Your task to perform on an android device: turn on wifi Image 0: 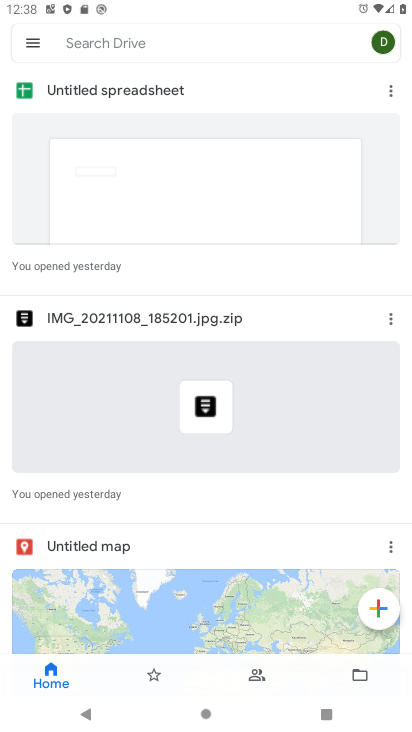
Step 0: press home button
Your task to perform on an android device: turn on wifi Image 1: 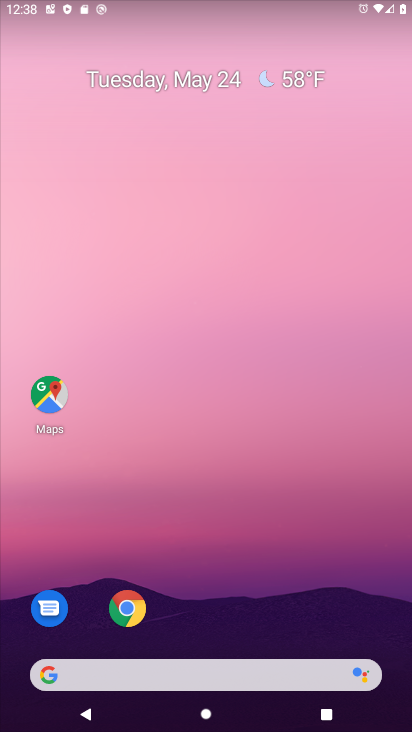
Step 1: drag from (258, 687) to (310, 120)
Your task to perform on an android device: turn on wifi Image 2: 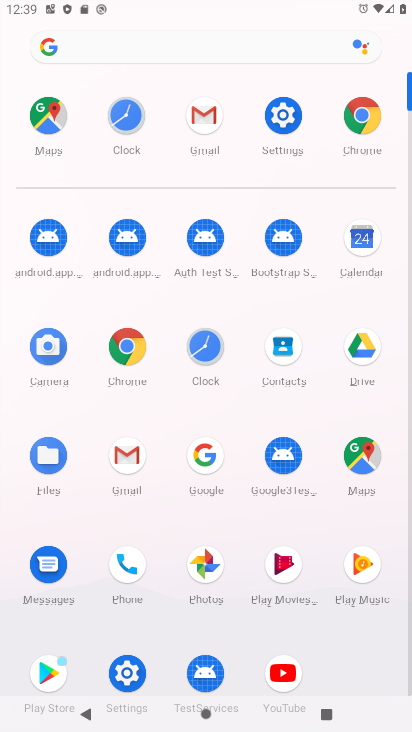
Step 2: click (282, 130)
Your task to perform on an android device: turn on wifi Image 3: 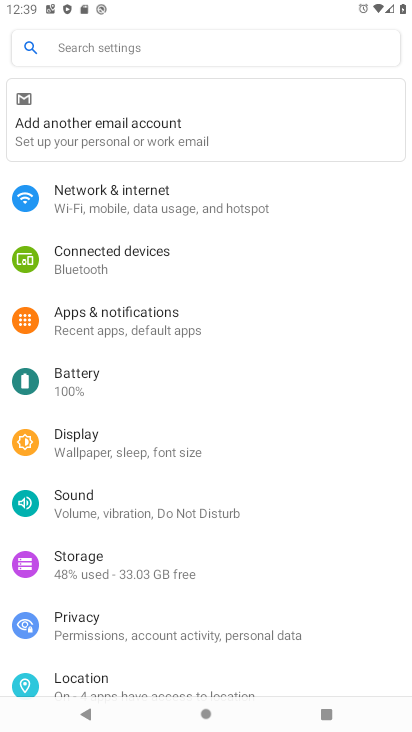
Step 3: click (129, 195)
Your task to perform on an android device: turn on wifi Image 4: 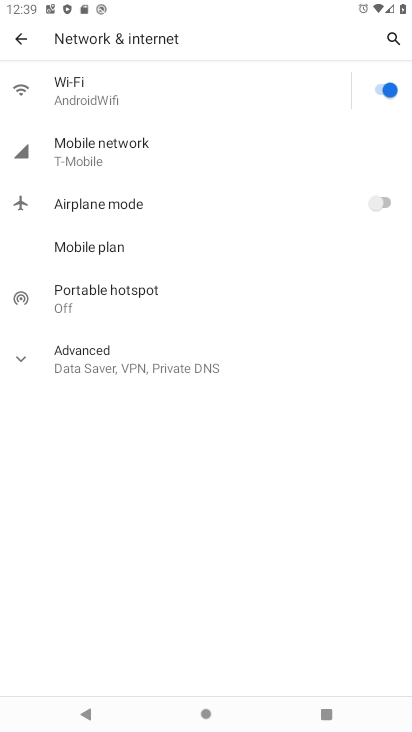
Step 4: task complete